Your task to perform on an android device: turn on showing notifications on the lock screen Image 0: 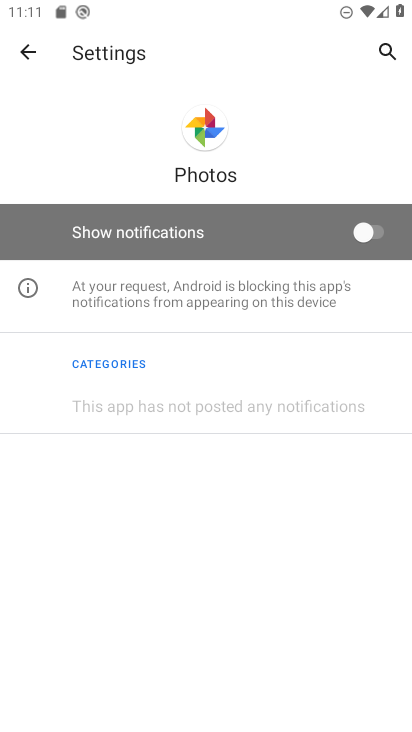
Step 0: press home button
Your task to perform on an android device: turn on showing notifications on the lock screen Image 1: 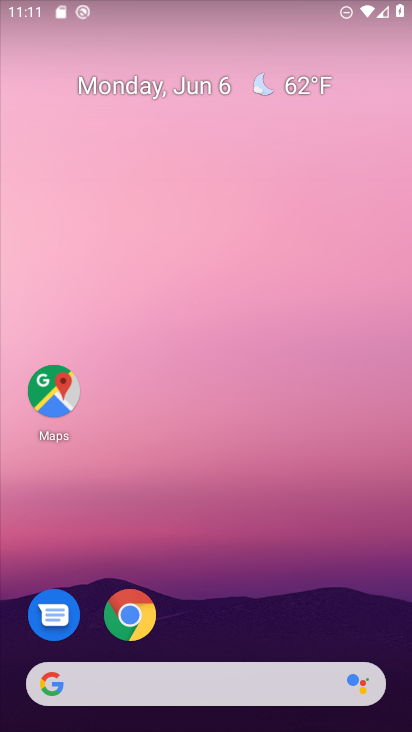
Step 1: drag from (227, 674) to (222, 186)
Your task to perform on an android device: turn on showing notifications on the lock screen Image 2: 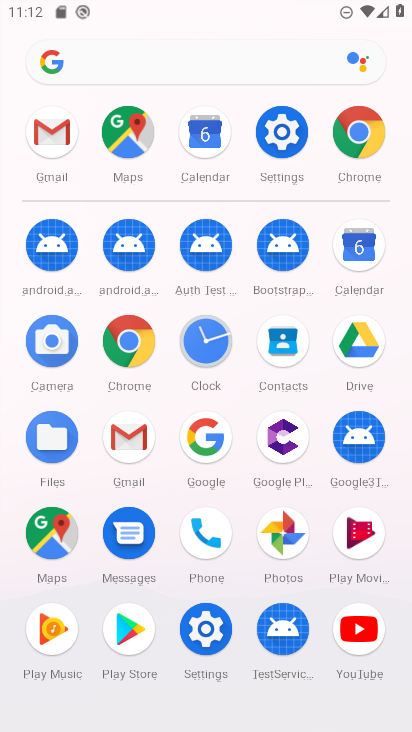
Step 2: click (270, 132)
Your task to perform on an android device: turn on showing notifications on the lock screen Image 3: 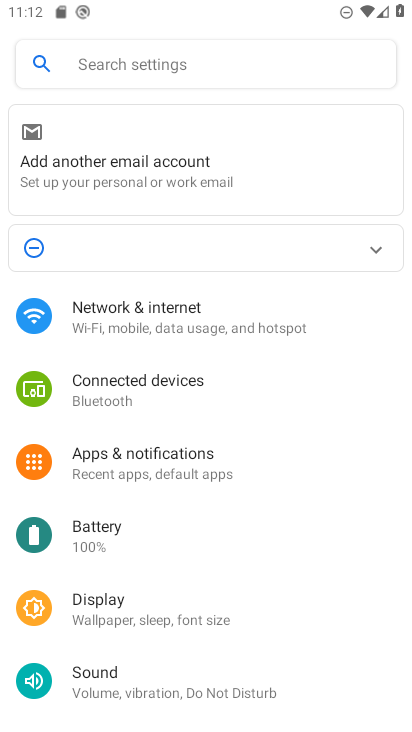
Step 3: click (161, 478)
Your task to perform on an android device: turn on showing notifications on the lock screen Image 4: 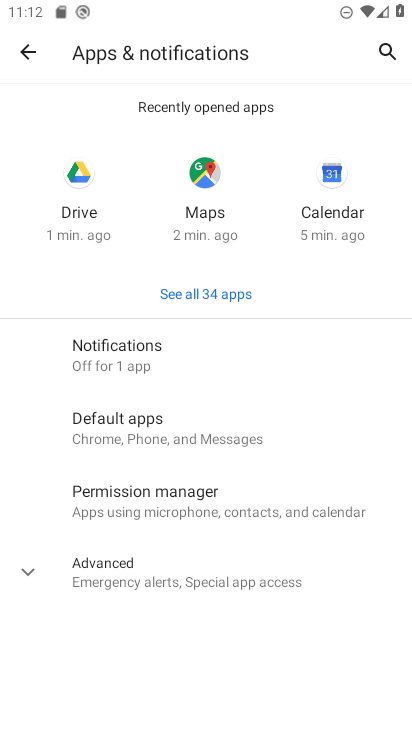
Step 4: click (125, 355)
Your task to perform on an android device: turn on showing notifications on the lock screen Image 5: 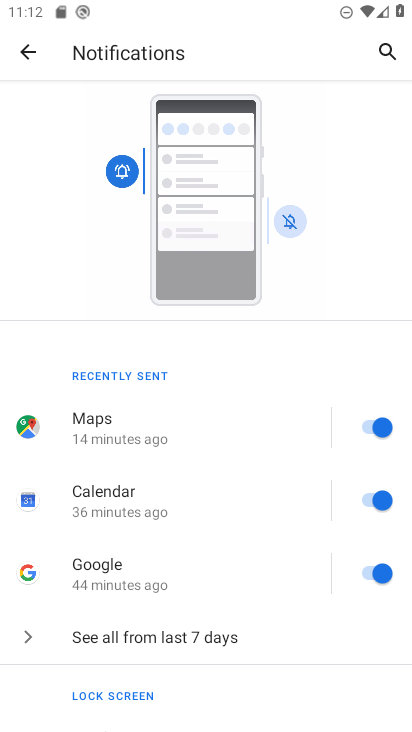
Step 5: drag from (170, 656) to (149, 131)
Your task to perform on an android device: turn on showing notifications on the lock screen Image 6: 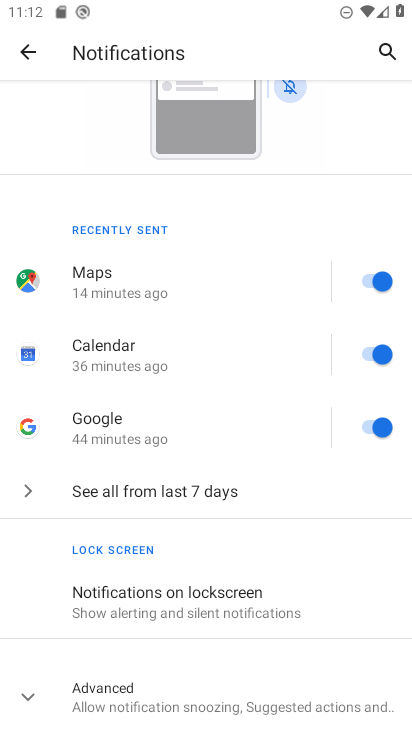
Step 6: click (135, 690)
Your task to perform on an android device: turn on showing notifications on the lock screen Image 7: 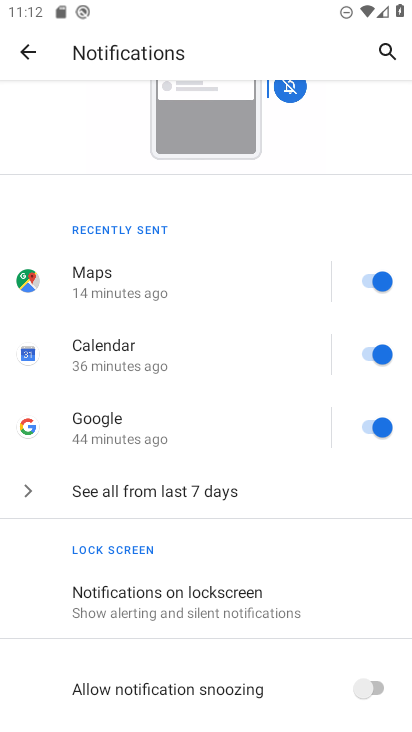
Step 7: click (134, 590)
Your task to perform on an android device: turn on showing notifications on the lock screen Image 8: 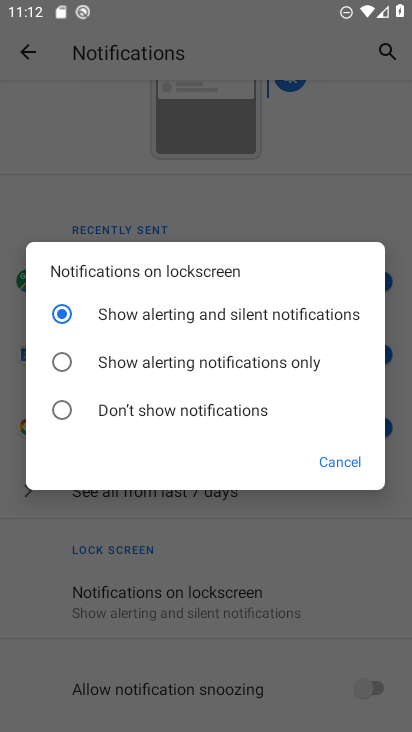
Step 8: click (190, 301)
Your task to perform on an android device: turn on showing notifications on the lock screen Image 9: 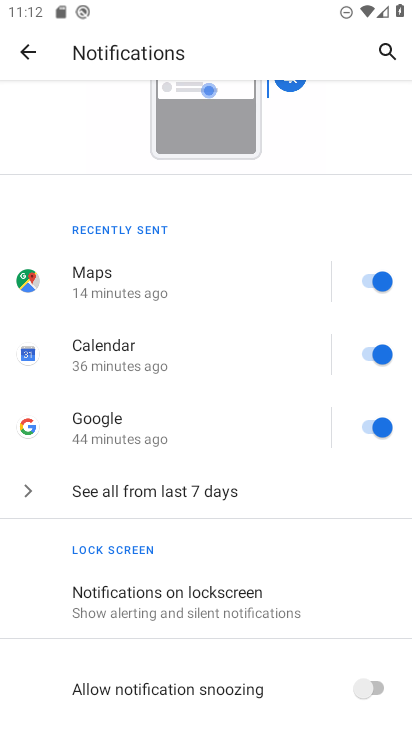
Step 9: task complete